Your task to perform on an android device: Show the shopping cart on bestbuy. Search for bose quietcomfort 35 on bestbuy, select the first entry, add it to the cart, then select checkout. Image 0: 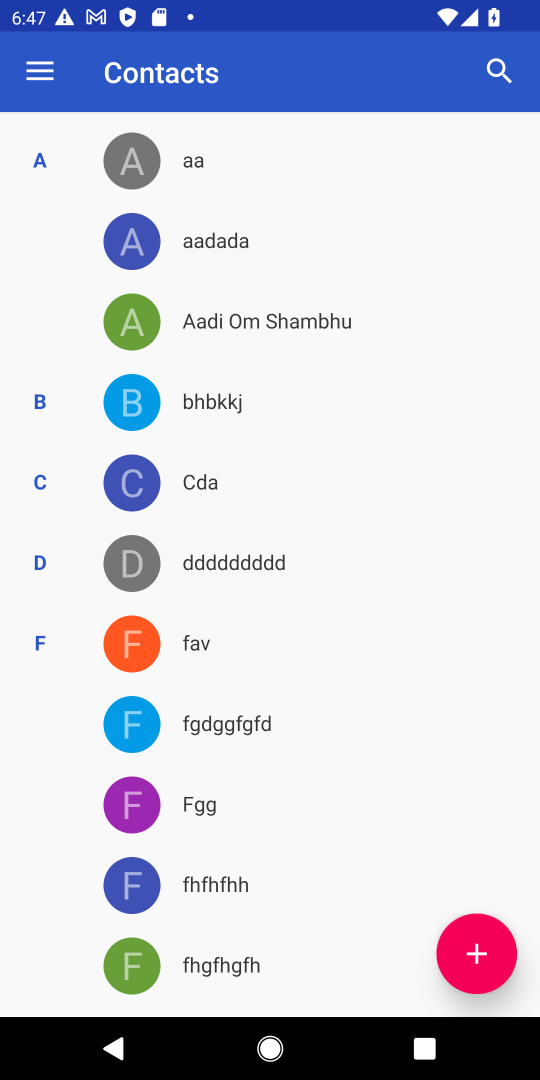
Step 0: press home button
Your task to perform on an android device: Show the shopping cart on bestbuy. Search for bose quietcomfort 35 on bestbuy, select the first entry, add it to the cart, then select checkout. Image 1: 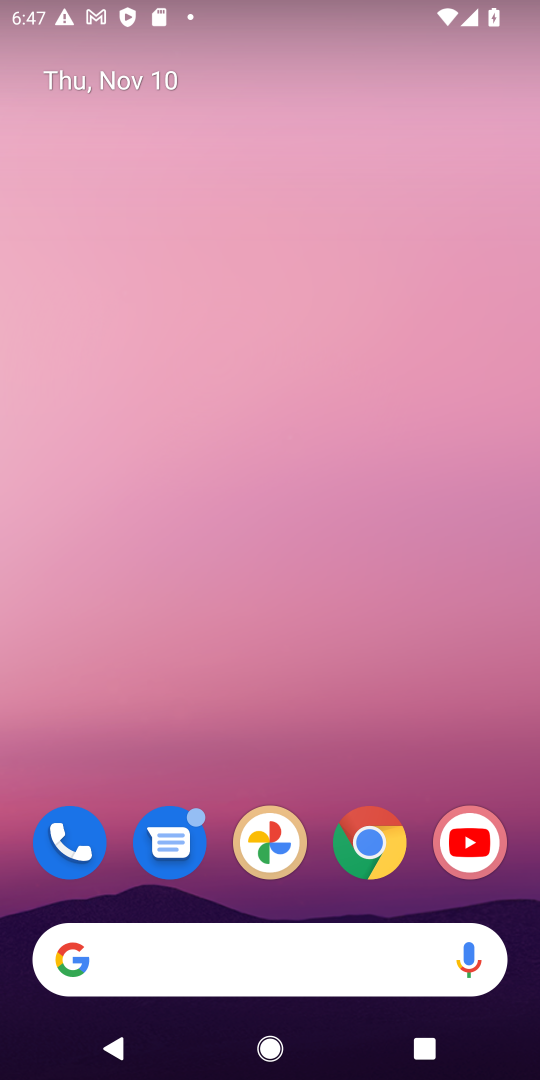
Step 1: click (372, 841)
Your task to perform on an android device: Show the shopping cart on bestbuy. Search for bose quietcomfort 35 on bestbuy, select the first entry, add it to the cart, then select checkout. Image 2: 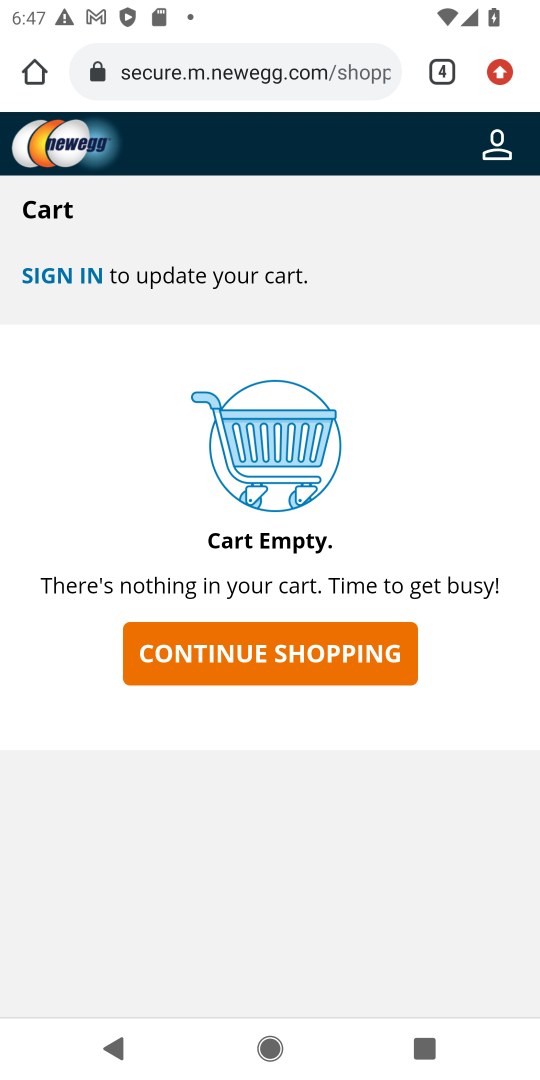
Step 2: click (441, 76)
Your task to perform on an android device: Show the shopping cart on bestbuy. Search for bose quietcomfort 35 on bestbuy, select the first entry, add it to the cart, then select checkout. Image 3: 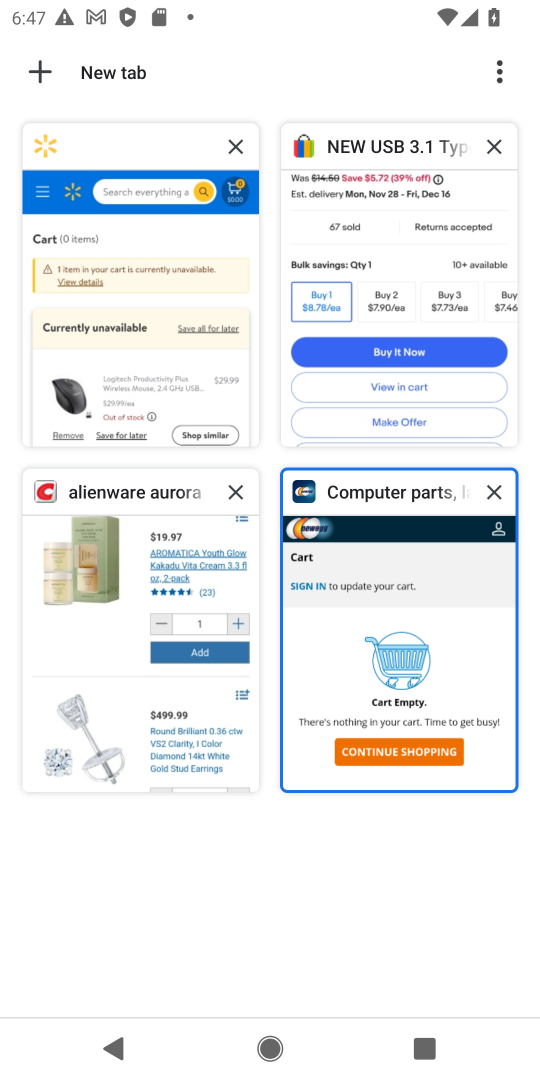
Step 3: click (39, 63)
Your task to perform on an android device: Show the shopping cart on bestbuy. Search for bose quietcomfort 35 on bestbuy, select the first entry, add it to the cart, then select checkout. Image 4: 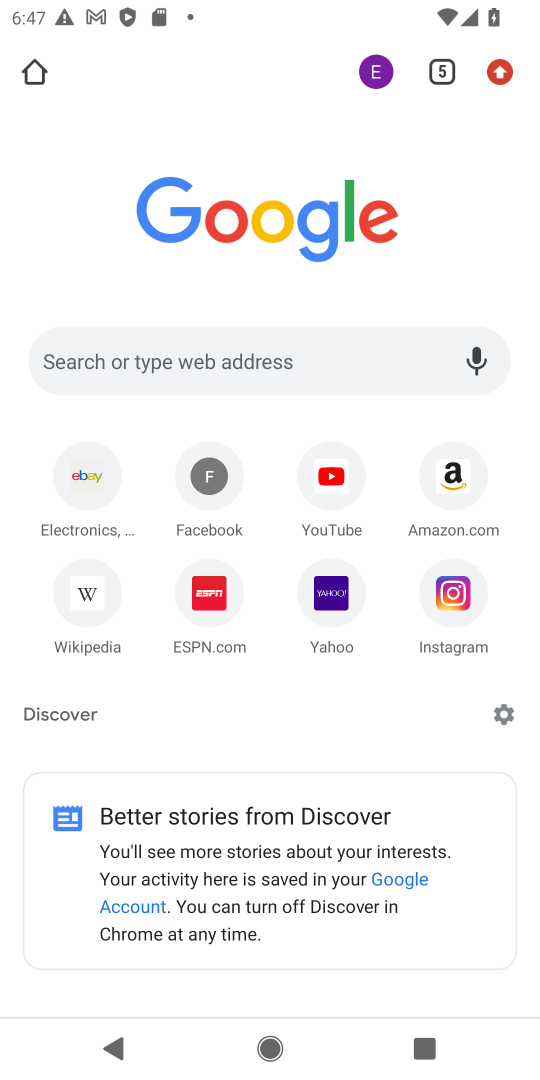
Step 4: click (190, 370)
Your task to perform on an android device: Show the shopping cart on bestbuy. Search for bose quietcomfort 35 on bestbuy, select the first entry, add it to the cart, then select checkout. Image 5: 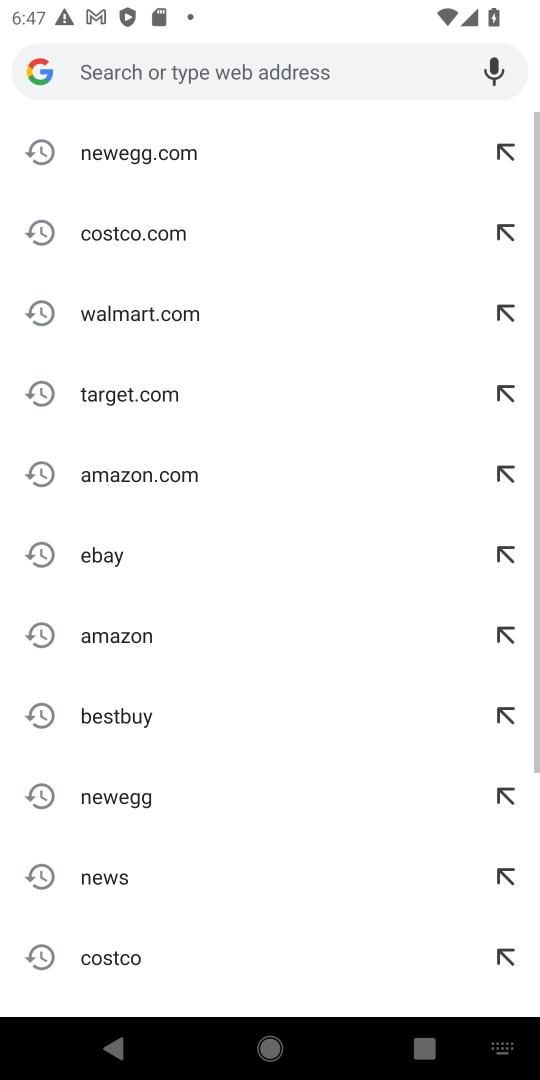
Step 5: click (115, 722)
Your task to perform on an android device: Show the shopping cart on bestbuy. Search for bose quietcomfort 35 on bestbuy, select the first entry, add it to the cart, then select checkout. Image 6: 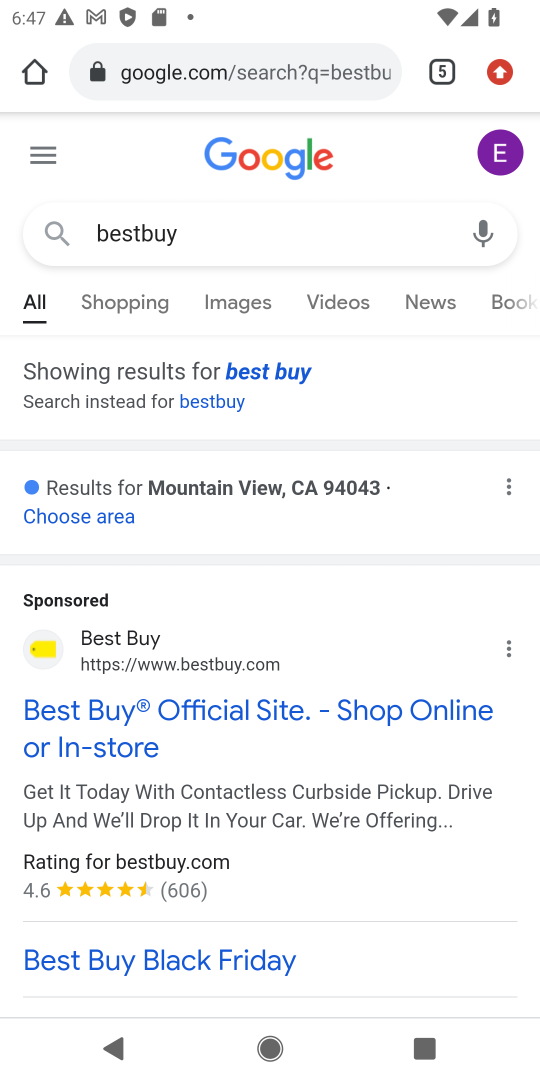
Step 6: click (110, 716)
Your task to perform on an android device: Show the shopping cart on bestbuy. Search for bose quietcomfort 35 on bestbuy, select the first entry, add it to the cart, then select checkout. Image 7: 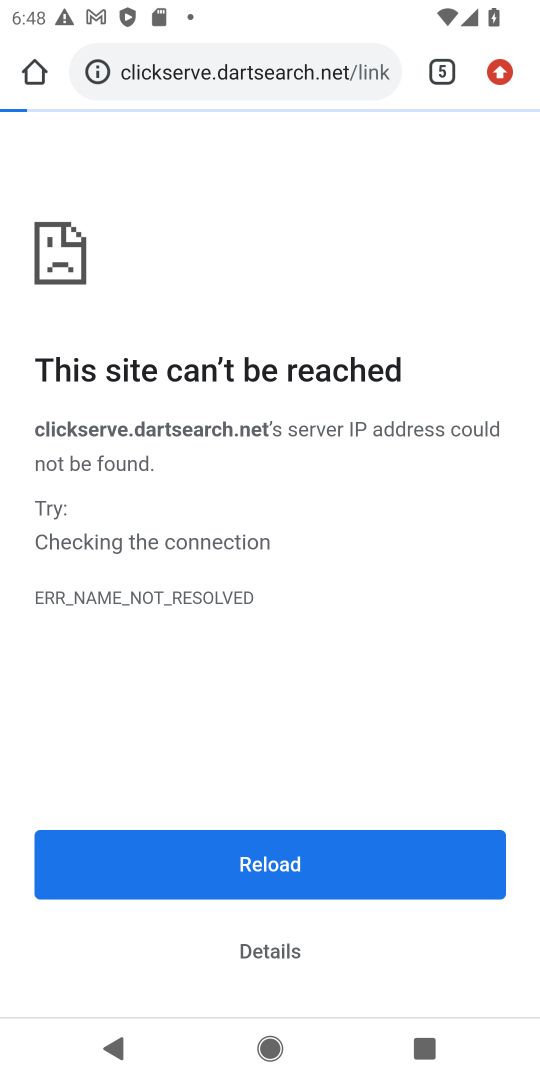
Step 7: click (287, 875)
Your task to perform on an android device: Show the shopping cart on bestbuy. Search for bose quietcomfort 35 on bestbuy, select the first entry, add it to the cart, then select checkout. Image 8: 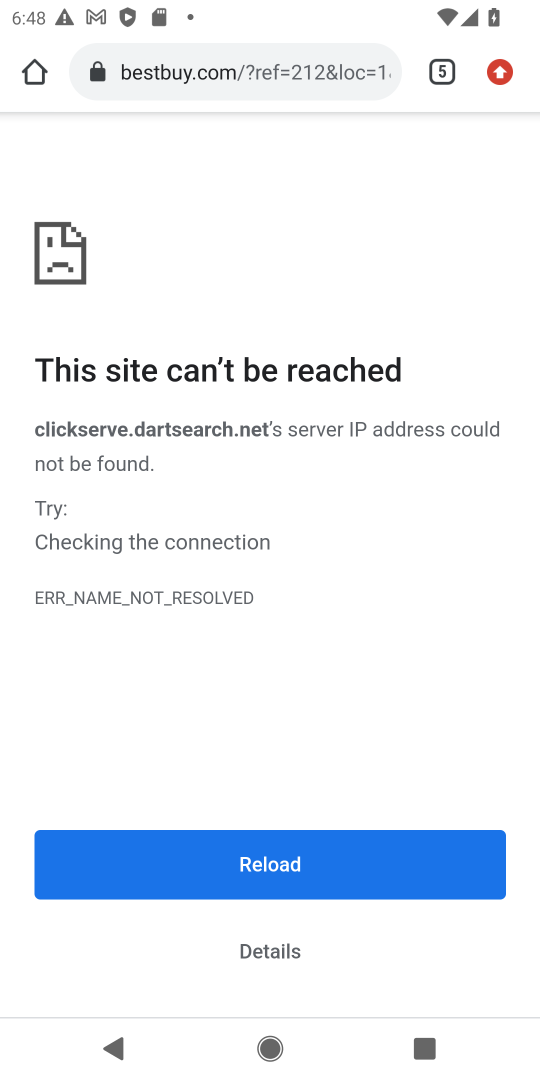
Step 8: press back button
Your task to perform on an android device: Show the shopping cart on bestbuy. Search for bose quietcomfort 35 on bestbuy, select the first entry, add it to the cart, then select checkout. Image 9: 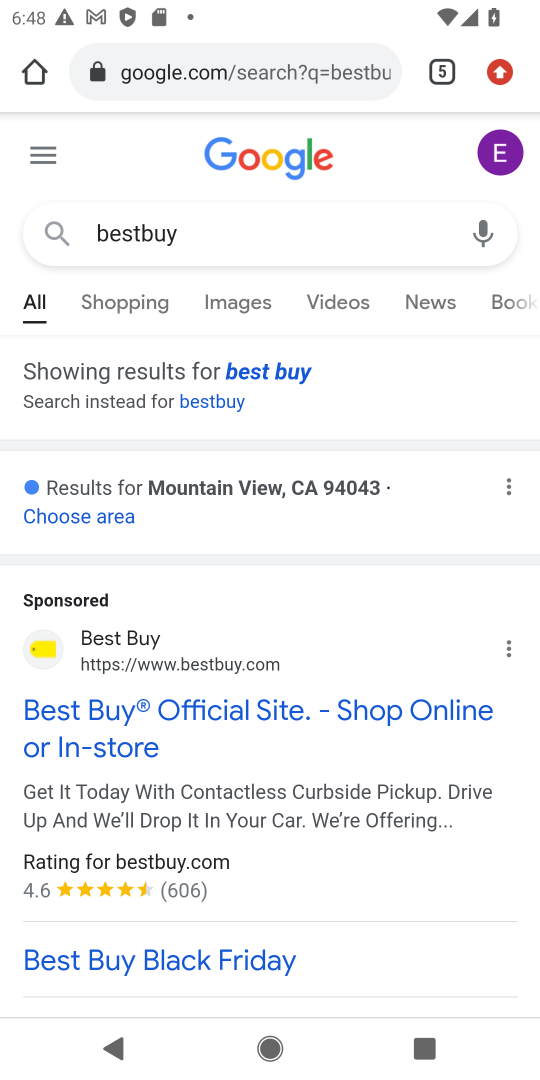
Step 9: click (170, 705)
Your task to perform on an android device: Show the shopping cart on bestbuy. Search for bose quietcomfort 35 on bestbuy, select the first entry, add it to the cart, then select checkout. Image 10: 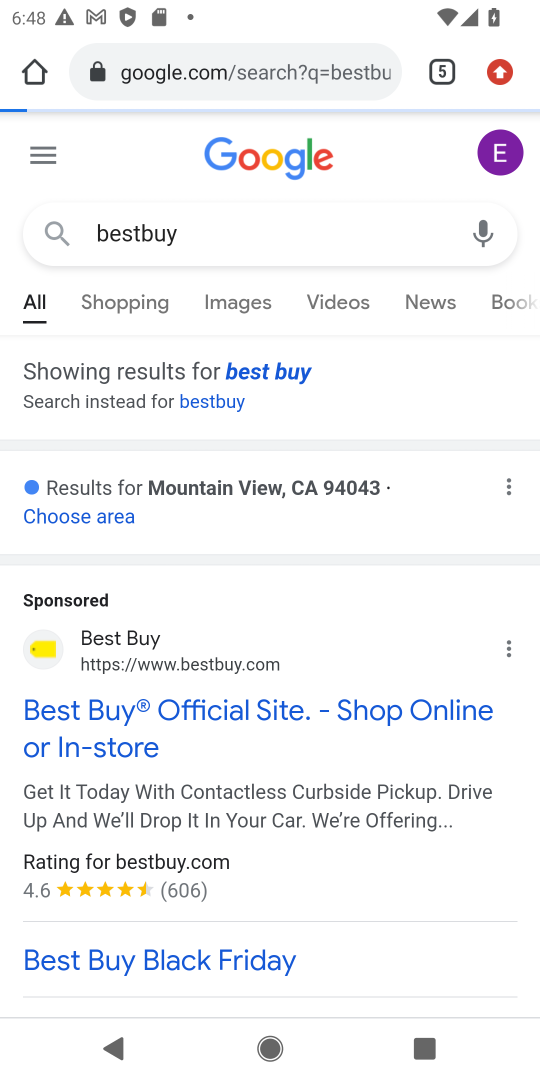
Step 10: click (161, 708)
Your task to perform on an android device: Show the shopping cart on bestbuy. Search for bose quietcomfort 35 on bestbuy, select the first entry, add it to the cart, then select checkout. Image 11: 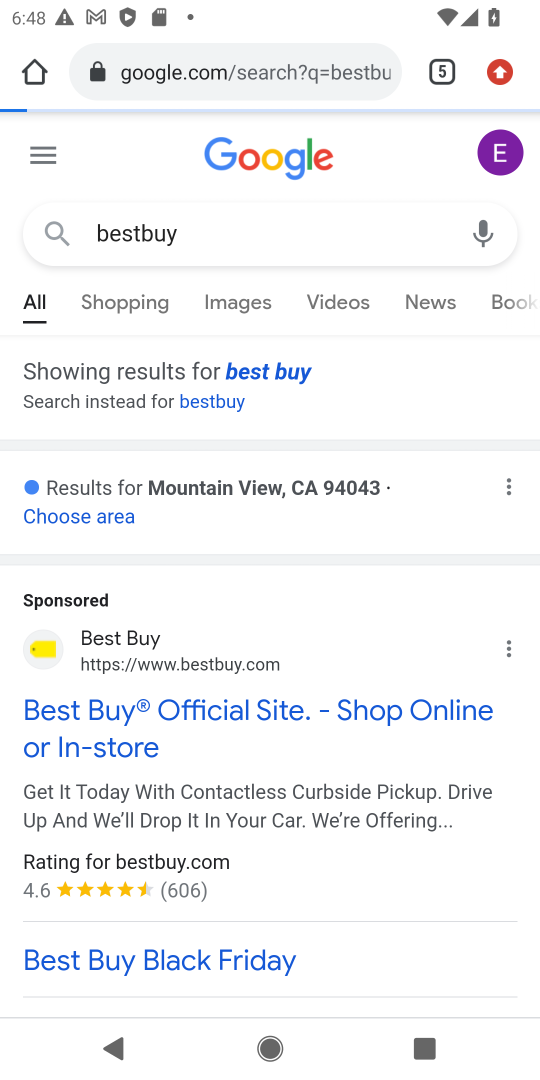
Step 11: drag from (318, 821) to (381, 367)
Your task to perform on an android device: Show the shopping cart on bestbuy. Search for bose quietcomfort 35 on bestbuy, select the first entry, add it to the cart, then select checkout. Image 12: 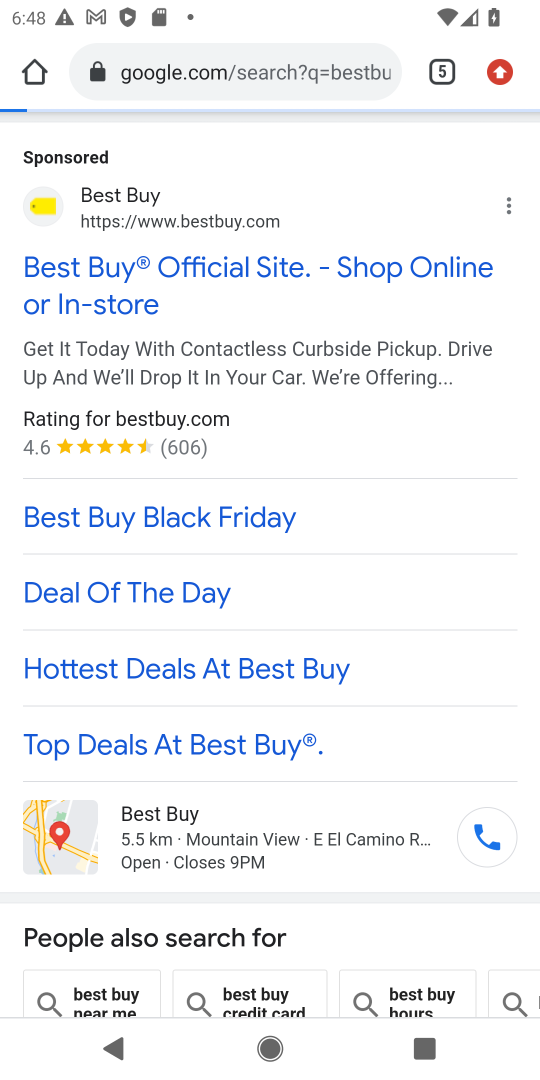
Step 12: drag from (340, 678) to (362, 162)
Your task to perform on an android device: Show the shopping cart on bestbuy. Search for bose quietcomfort 35 on bestbuy, select the first entry, add it to the cart, then select checkout. Image 13: 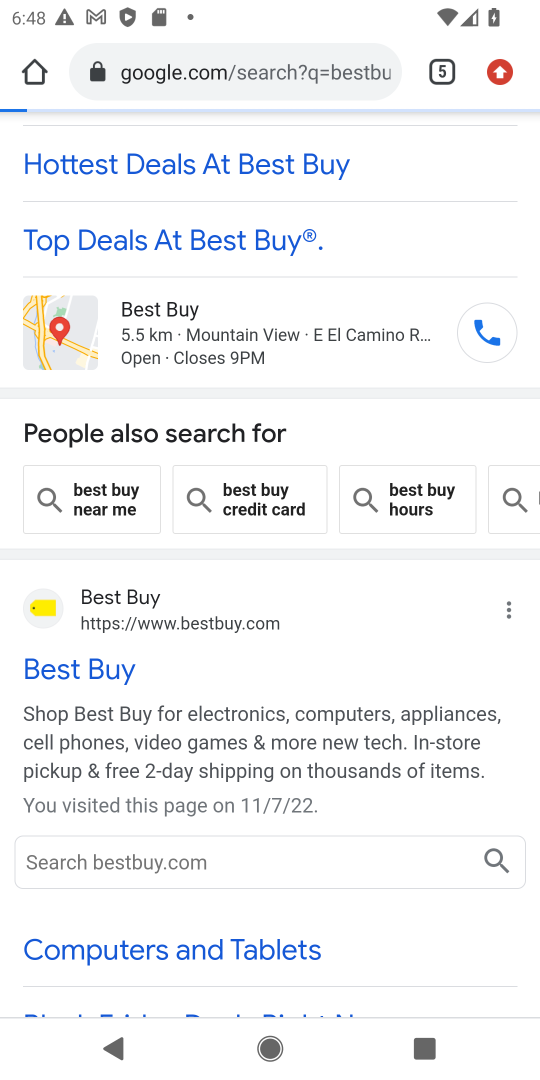
Step 13: click (95, 668)
Your task to perform on an android device: Show the shopping cart on bestbuy. Search for bose quietcomfort 35 on bestbuy, select the first entry, add it to the cart, then select checkout. Image 14: 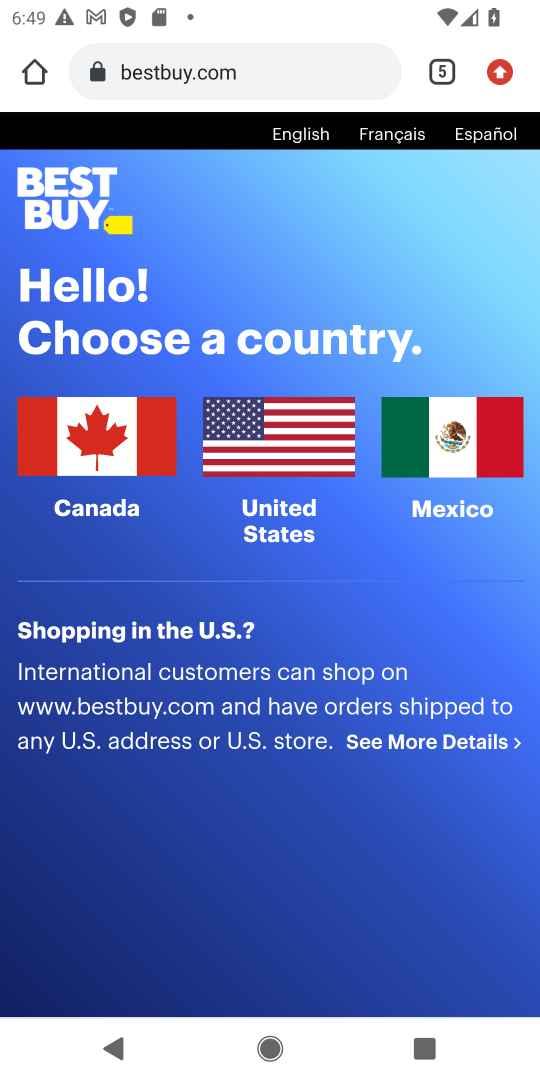
Step 14: click (303, 412)
Your task to perform on an android device: Show the shopping cart on bestbuy. Search for bose quietcomfort 35 on bestbuy, select the first entry, add it to the cart, then select checkout. Image 15: 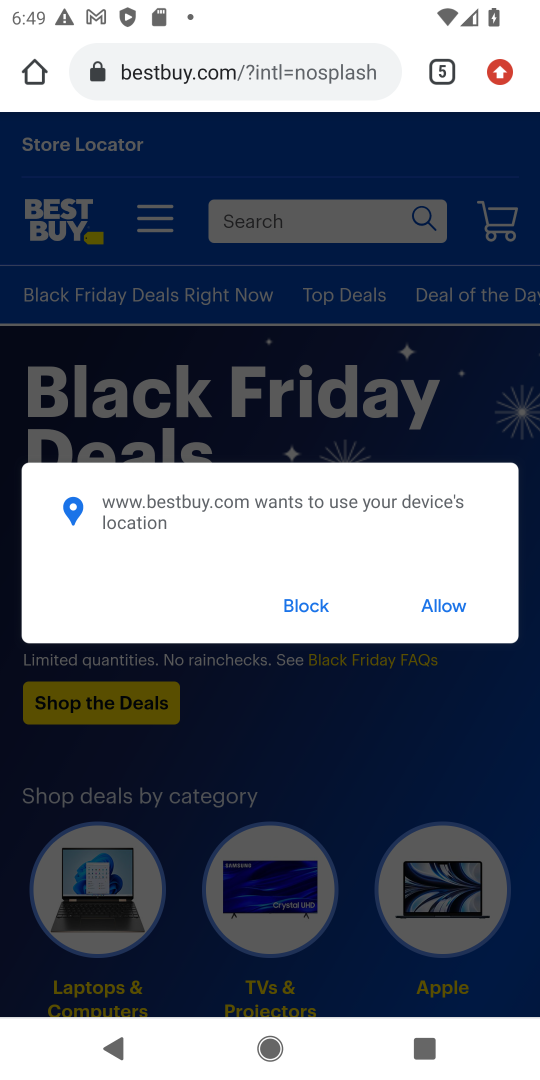
Step 15: click (308, 603)
Your task to perform on an android device: Show the shopping cart on bestbuy. Search for bose quietcomfort 35 on bestbuy, select the first entry, add it to the cart, then select checkout. Image 16: 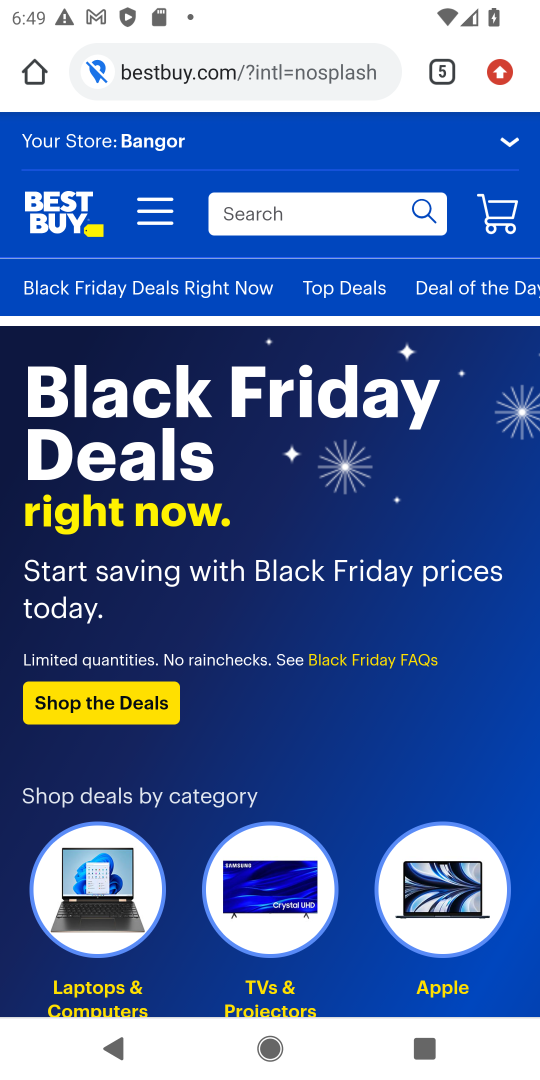
Step 16: click (272, 213)
Your task to perform on an android device: Show the shopping cart on bestbuy. Search for bose quietcomfort 35 on bestbuy, select the first entry, add it to the cart, then select checkout. Image 17: 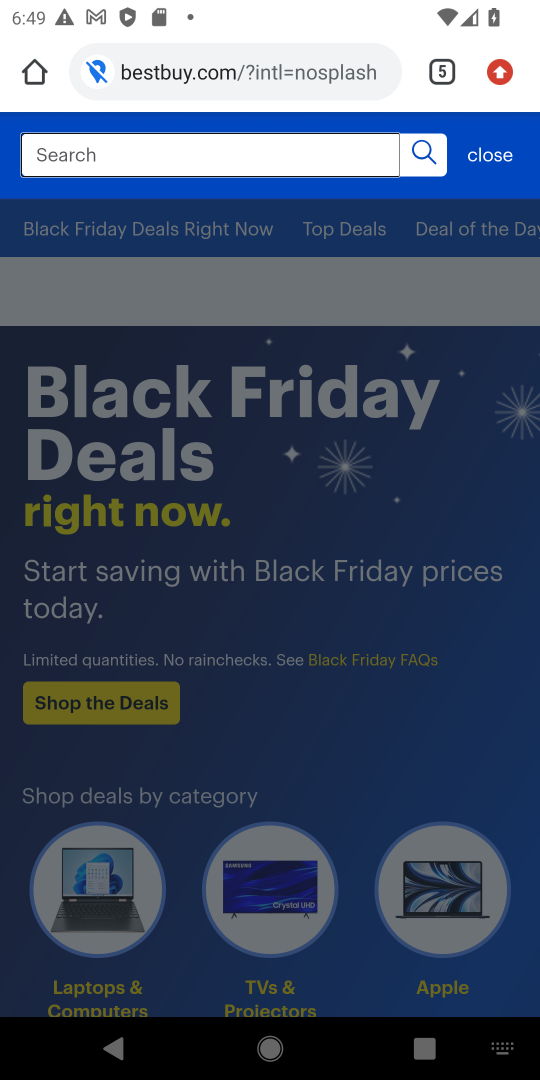
Step 17: type "bose quietcomfort 35"
Your task to perform on an android device: Show the shopping cart on bestbuy. Search for bose quietcomfort 35 on bestbuy, select the first entry, add it to the cart, then select checkout. Image 18: 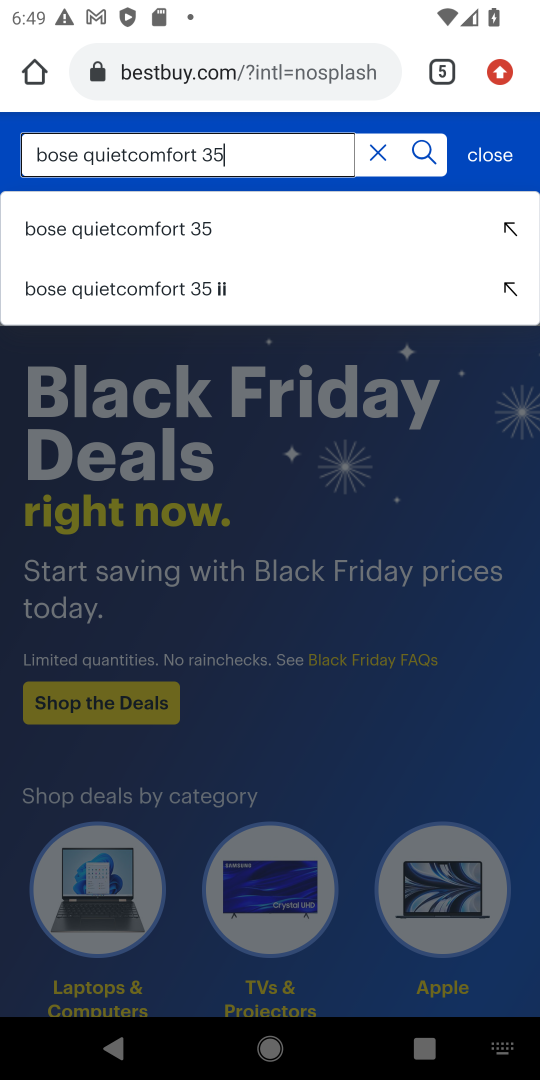
Step 18: click (61, 237)
Your task to perform on an android device: Show the shopping cart on bestbuy. Search for bose quietcomfort 35 on bestbuy, select the first entry, add it to the cart, then select checkout. Image 19: 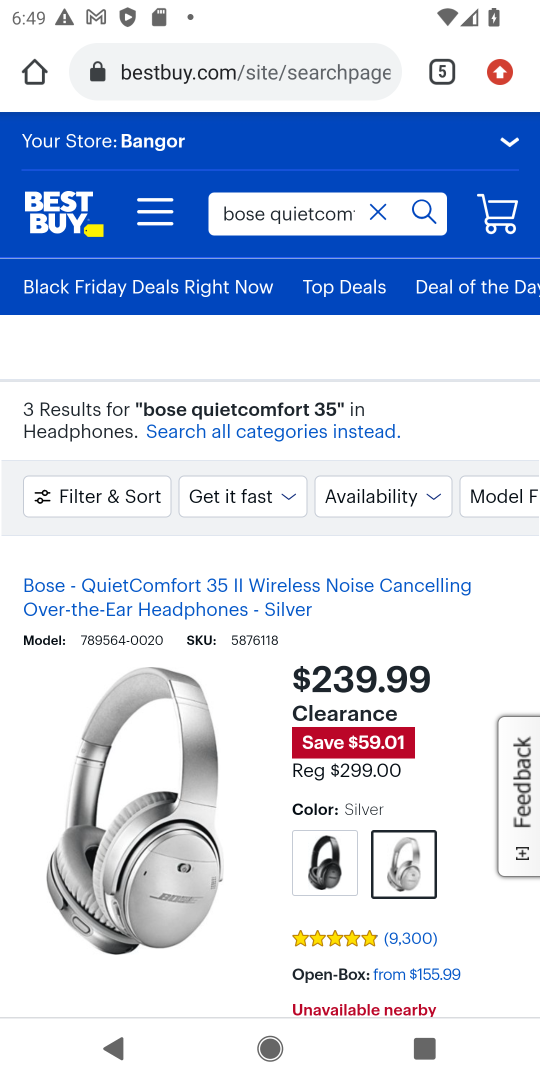
Step 19: drag from (463, 910) to (430, 325)
Your task to perform on an android device: Show the shopping cart on bestbuy. Search for bose quietcomfort 35 on bestbuy, select the first entry, add it to the cart, then select checkout. Image 20: 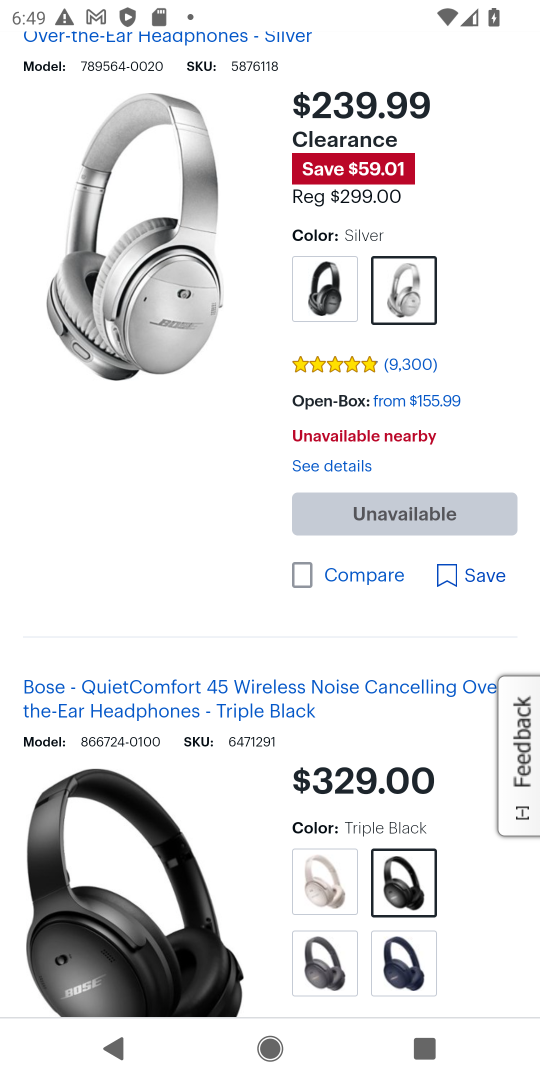
Step 20: drag from (189, 570) to (304, 116)
Your task to perform on an android device: Show the shopping cart on bestbuy. Search for bose quietcomfort 35 on bestbuy, select the first entry, add it to the cart, then select checkout. Image 21: 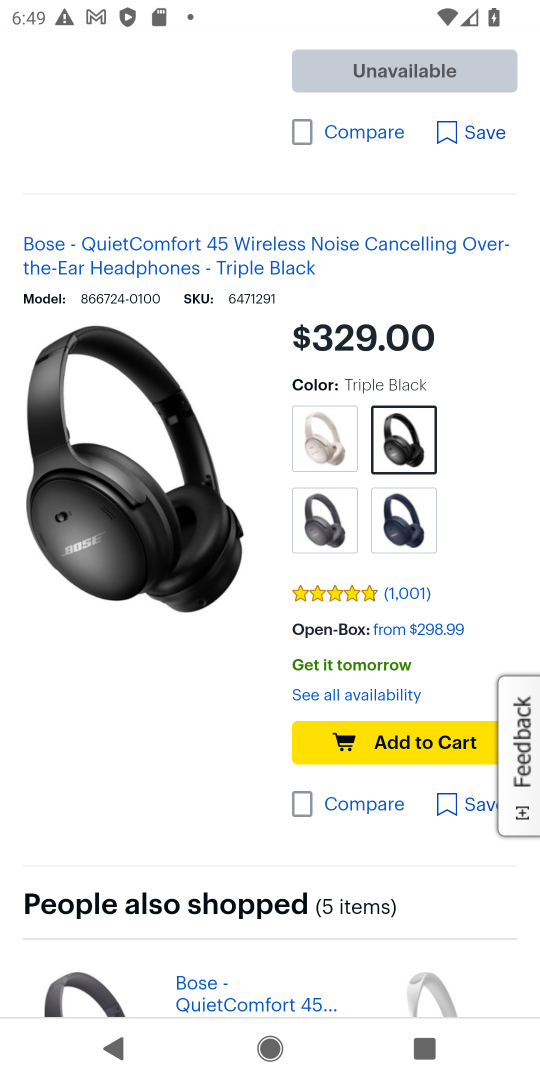
Step 21: click (423, 741)
Your task to perform on an android device: Show the shopping cart on bestbuy. Search for bose quietcomfort 35 on bestbuy, select the first entry, add it to the cart, then select checkout. Image 22: 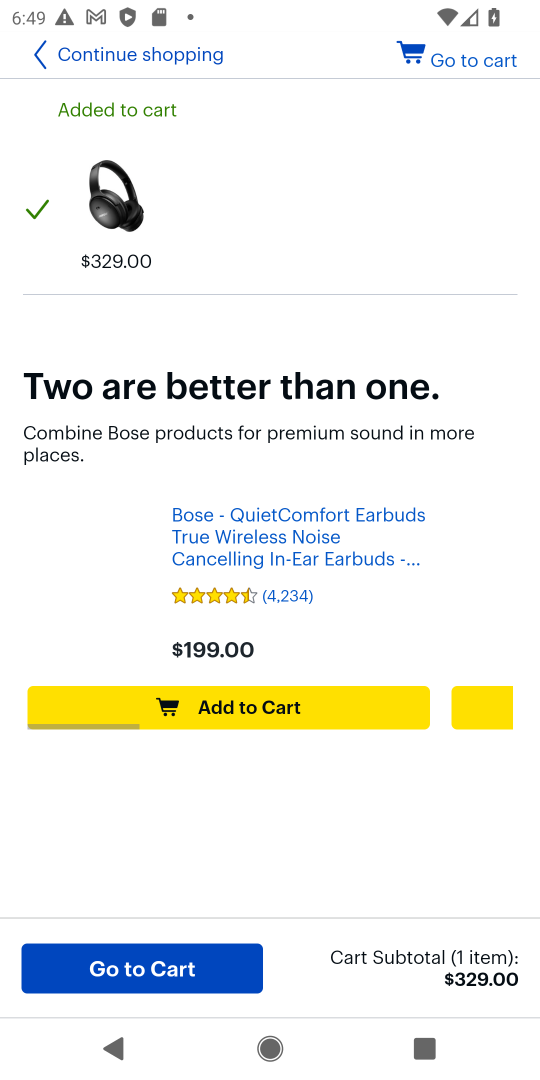
Step 22: task complete